Your task to perform on an android device: Open ESPN.com Image 0: 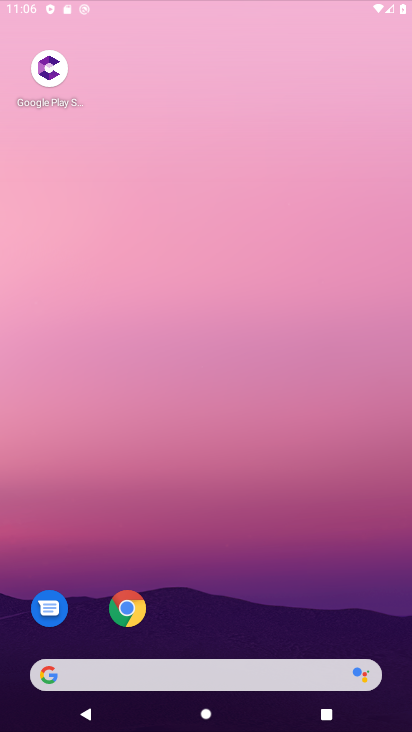
Step 0: drag from (187, 543) to (187, 38)
Your task to perform on an android device: Open ESPN.com Image 1: 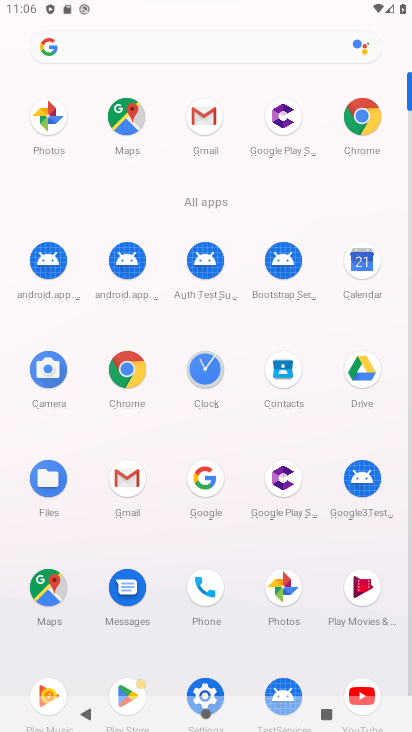
Step 1: click (126, 376)
Your task to perform on an android device: Open ESPN.com Image 2: 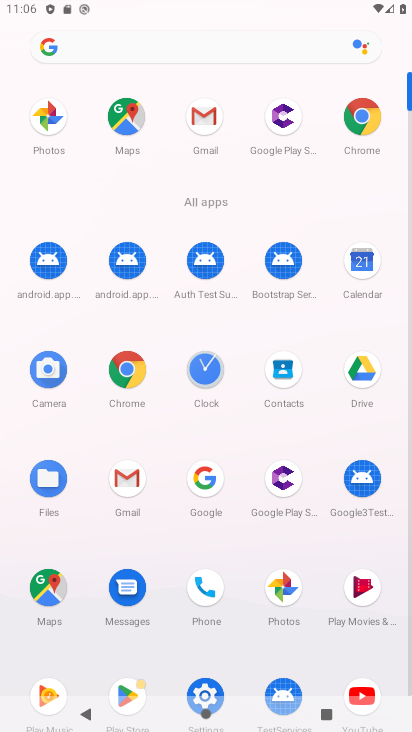
Step 2: click (126, 378)
Your task to perform on an android device: Open ESPN.com Image 3: 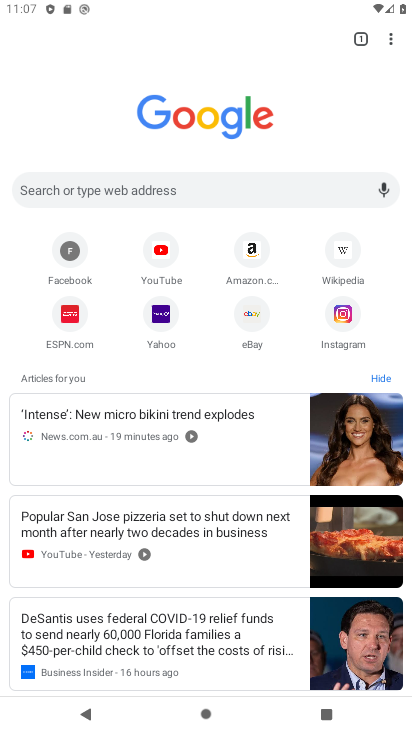
Step 3: click (80, 330)
Your task to perform on an android device: Open ESPN.com Image 4: 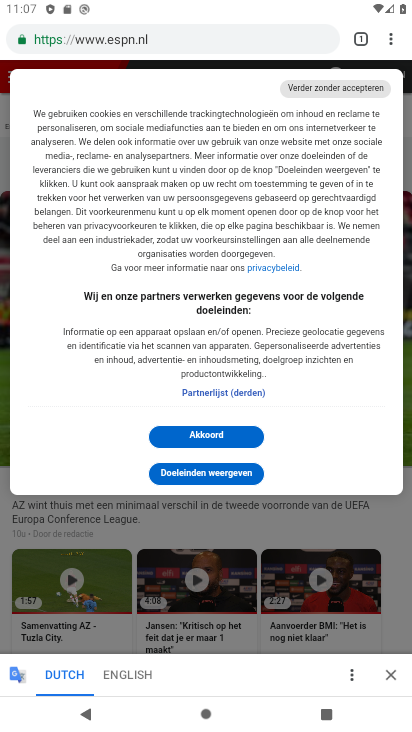
Step 4: task complete